Your task to perform on an android device: toggle improve location accuracy Image 0: 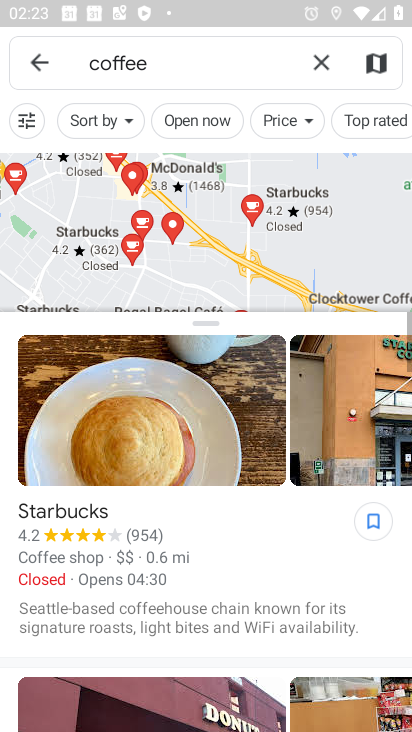
Step 0: press home button
Your task to perform on an android device: toggle improve location accuracy Image 1: 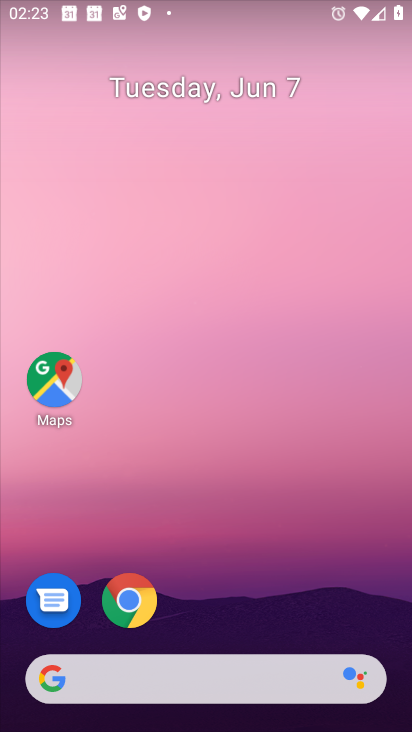
Step 1: drag from (195, 724) to (197, 45)
Your task to perform on an android device: toggle improve location accuracy Image 2: 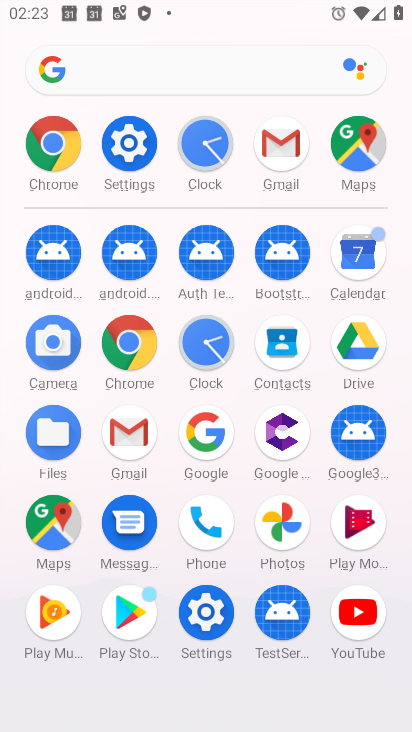
Step 2: click (122, 144)
Your task to perform on an android device: toggle improve location accuracy Image 3: 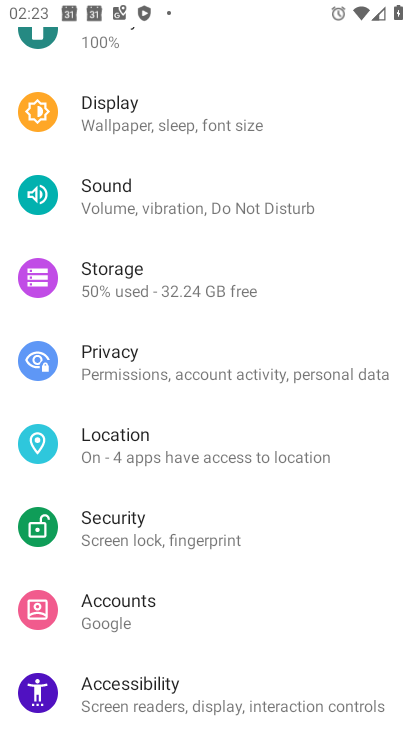
Step 3: click (113, 439)
Your task to perform on an android device: toggle improve location accuracy Image 4: 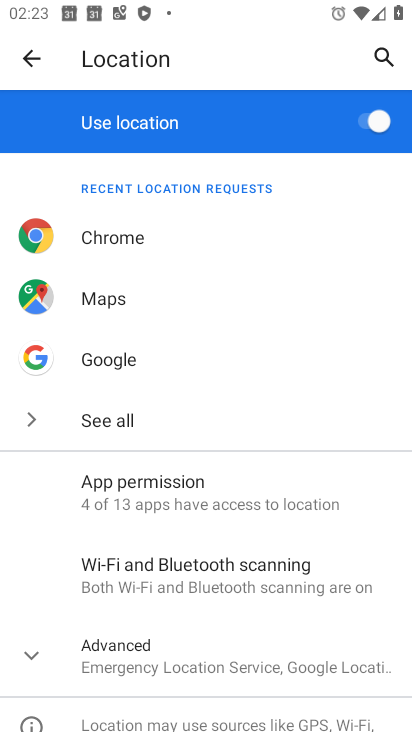
Step 4: drag from (186, 664) to (173, 443)
Your task to perform on an android device: toggle improve location accuracy Image 5: 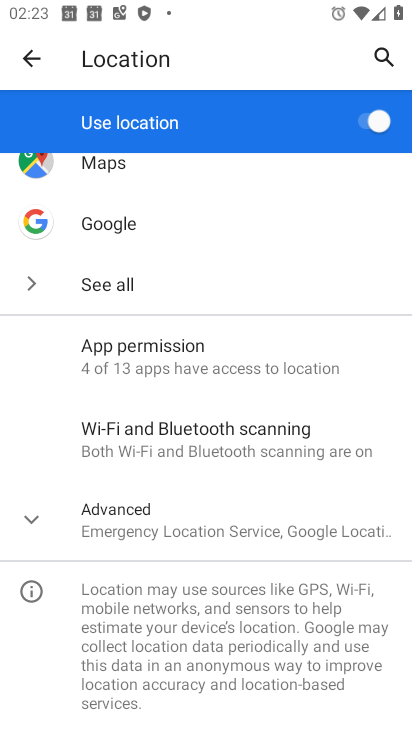
Step 5: click (117, 520)
Your task to perform on an android device: toggle improve location accuracy Image 6: 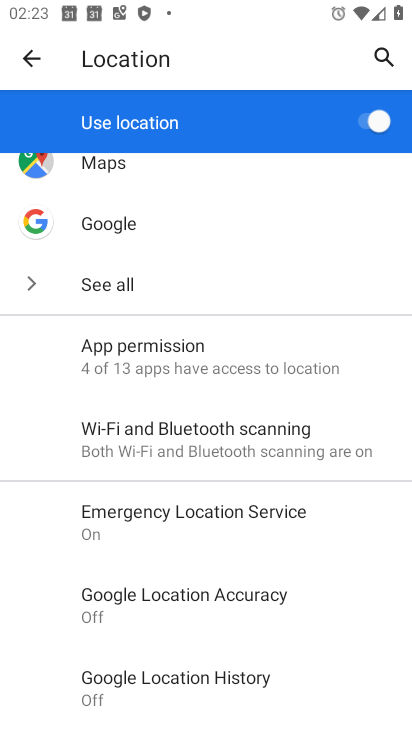
Step 6: click (179, 595)
Your task to perform on an android device: toggle improve location accuracy Image 7: 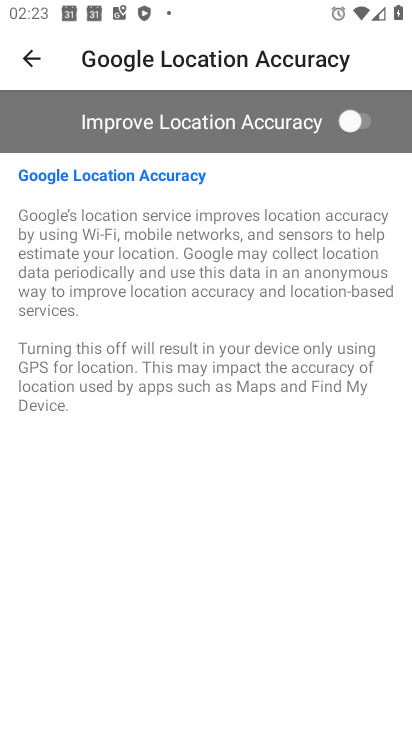
Step 7: click (358, 119)
Your task to perform on an android device: toggle improve location accuracy Image 8: 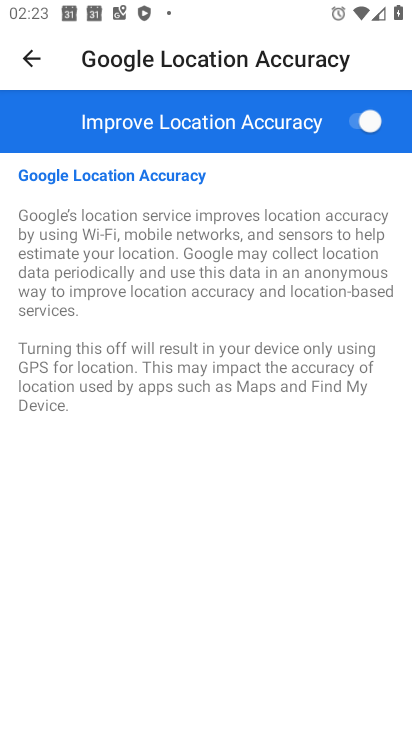
Step 8: task complete